Your task to perform on an android device: turn off airplane mode Image 0: 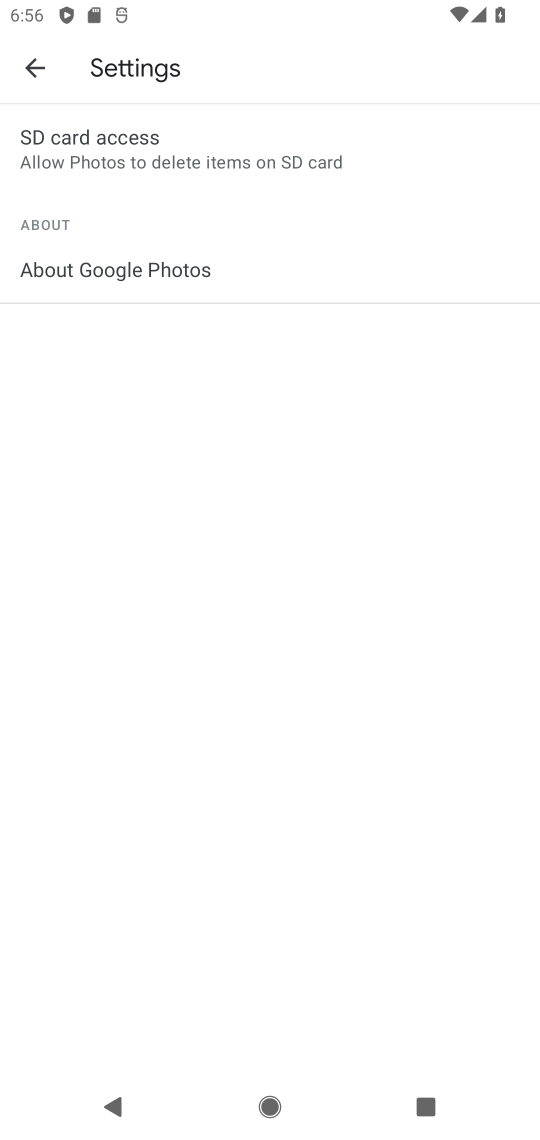
Step 0: drag from (361, 2) to (427, 579)
Your task to perform on an android device: turn off airplane mode Image 1: 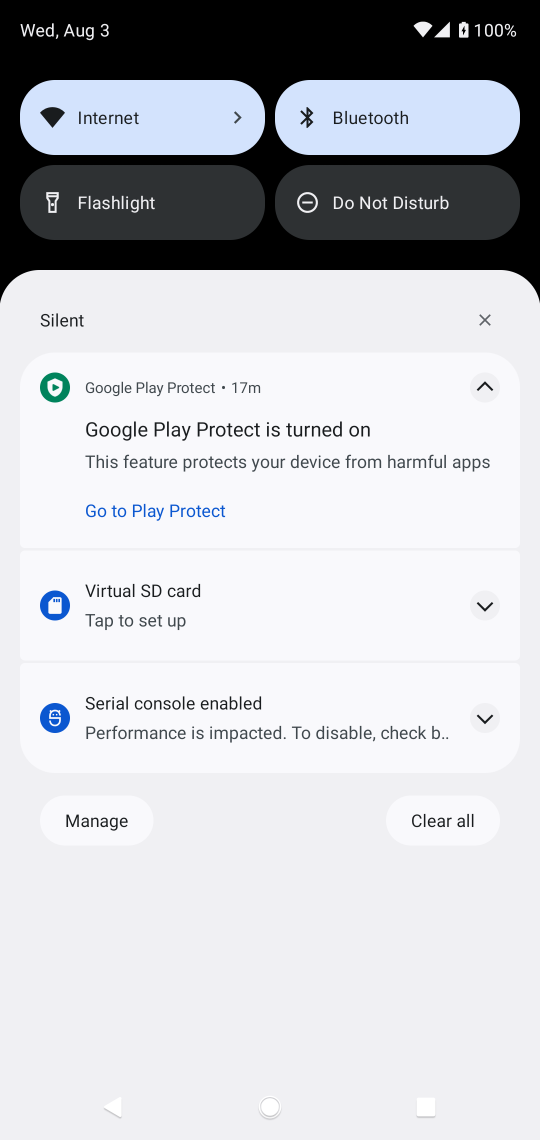
Step 1: task complete